Your task to perform on an android device: empty trash in google photos Image 0: 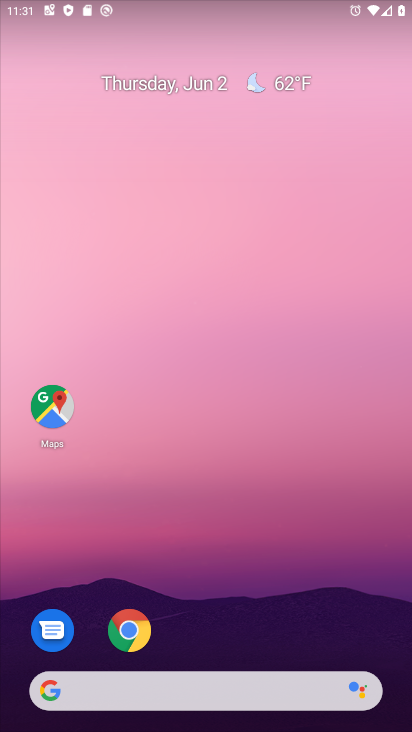
Step 0: press home button
Your task to perform on an android device: empty trash in google photos Image 1: 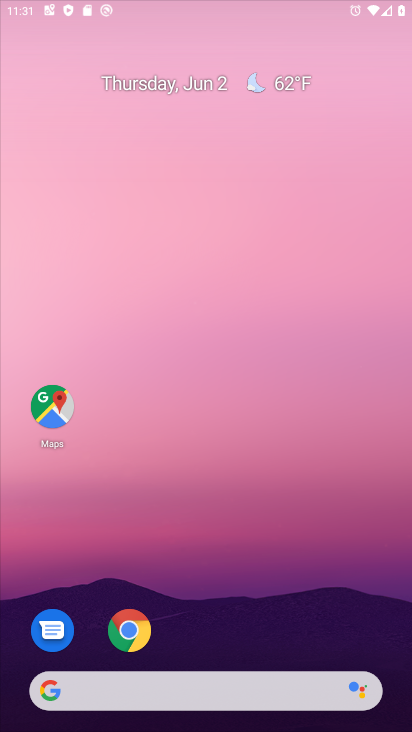
Step 1: press home button
Your task to perform on an android device: empty trash in google photos Image 2: 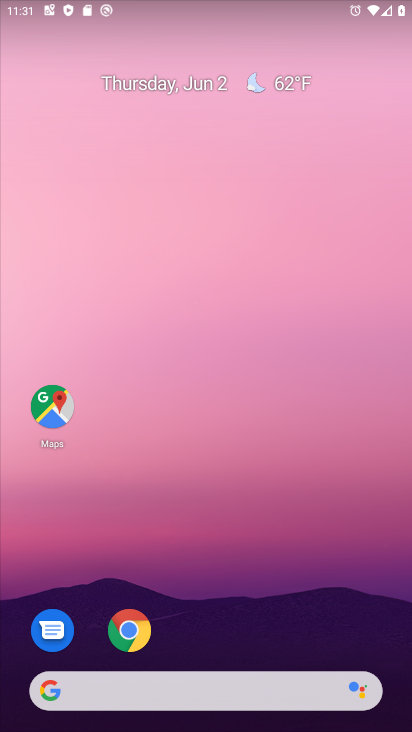
Step 2: drag from (170, 693) to (325, 92)
Your task to perform on an android device: empty trash in google photos Image 3: 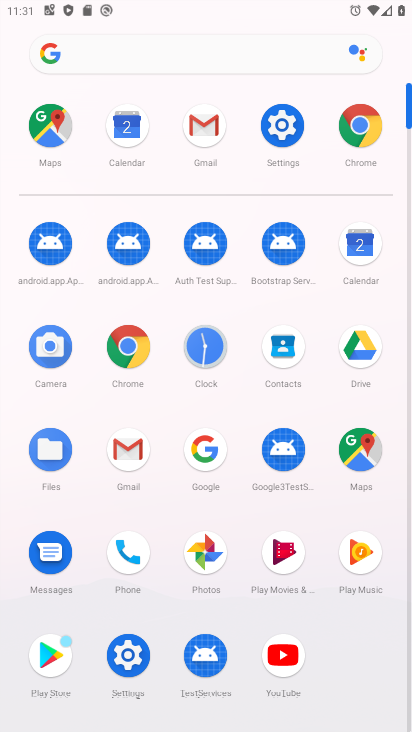
Step 3: click (207, 552)
Your task to perform on an android device: empty trash in google photos Image 4: 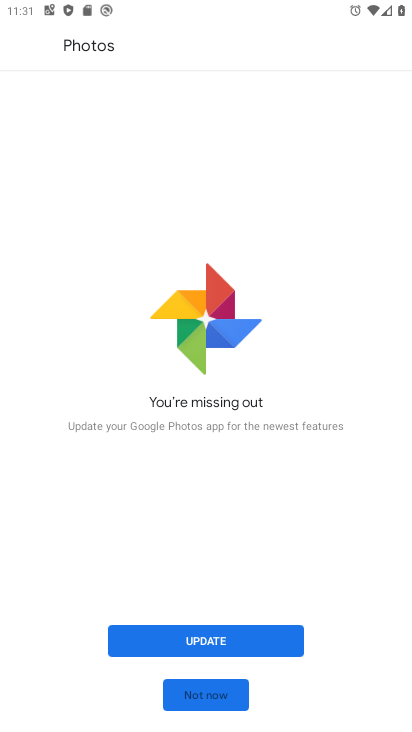
Step 4: click (201, 631)
Your task to perform on an android device: empty trash in google photos Image 5: 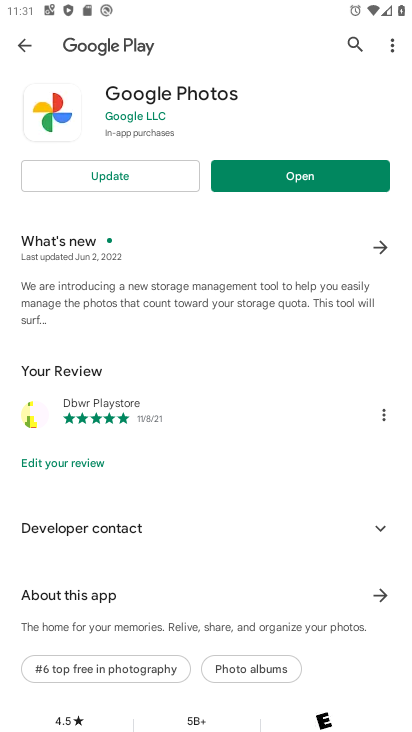
Step 5: click (149, 179)
Your task to perform on an android device: empty trash in google photos Image 6: 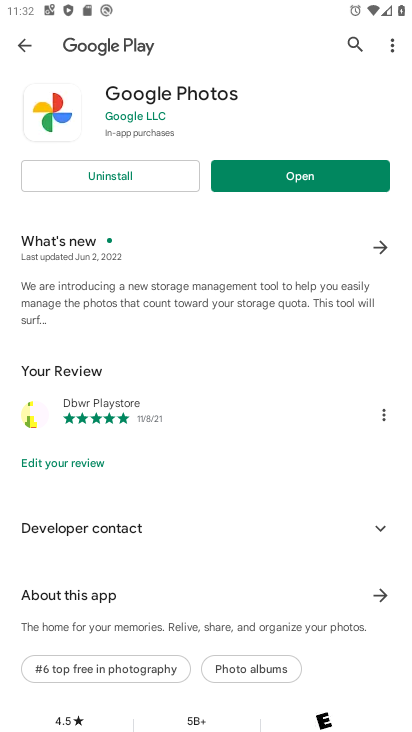
Step 6: click (323, 180)
Your task to perform on an android device: empty trash in google photos Image 7: 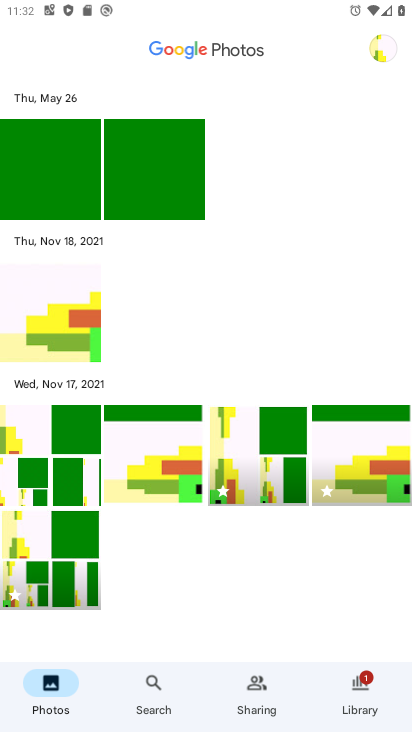
Step 7: click (360, 697)
Your task to perform on an android device: empty trash in google photos Image 8: 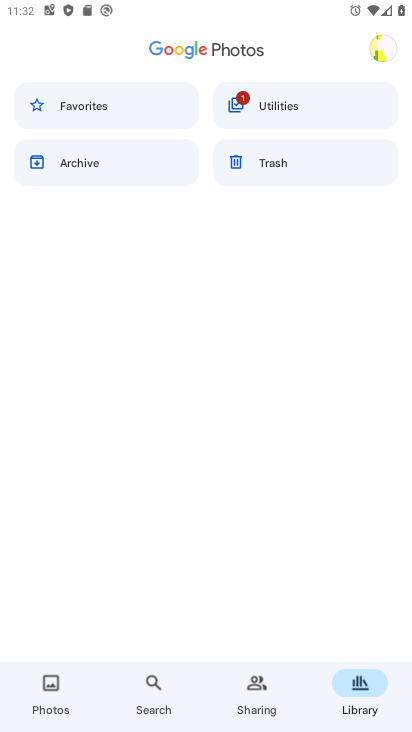
Step 8: click (302, 166)
Your task to perform on an android device: empty trash in google photos Image 9: 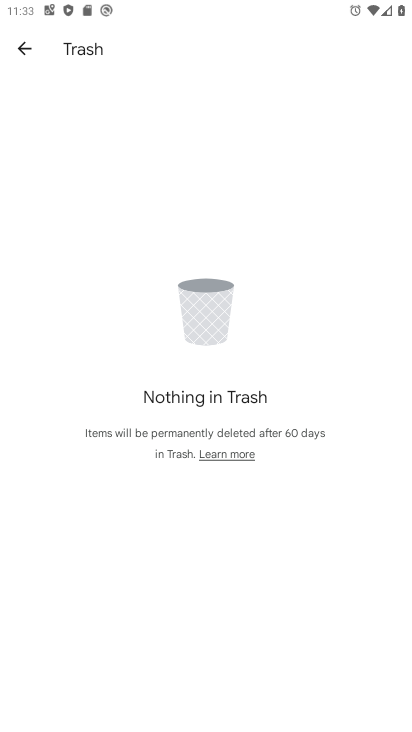
Step 9: task complete